Your task to perform on an android device: set the stopwatch Image 0: 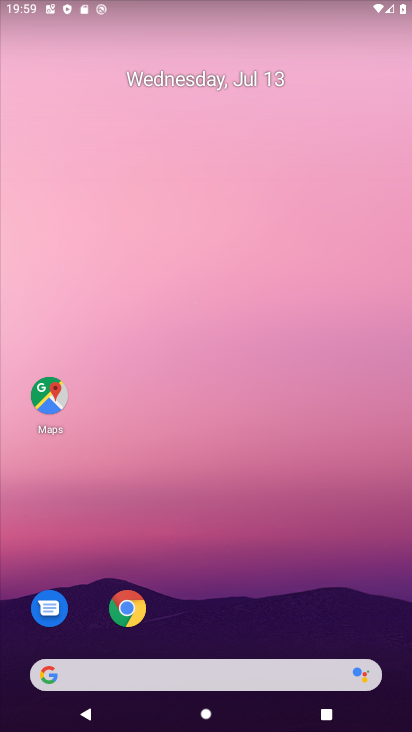
Step 0: drag from (199, 632) to (201, 146)
Your task to perform on an android device: set the stopwatch Image 1: 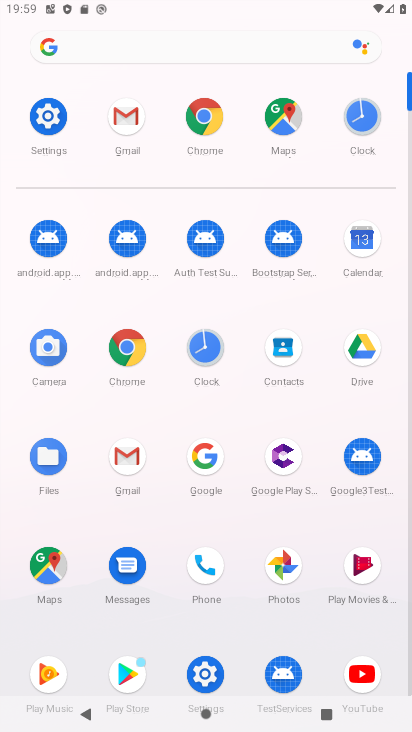
Step 1: click (192, 340)
Your task to perform on an android device: set the stopwatch Image 2: 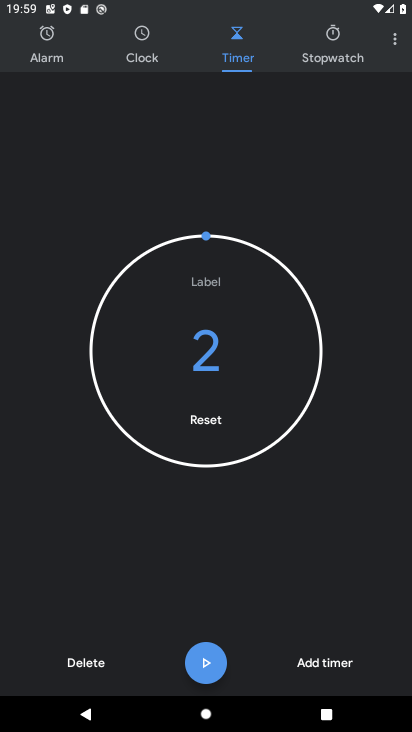
Step 2: click (309, 55)
Your task to perform on an android device: set the stopwatch Image 3: 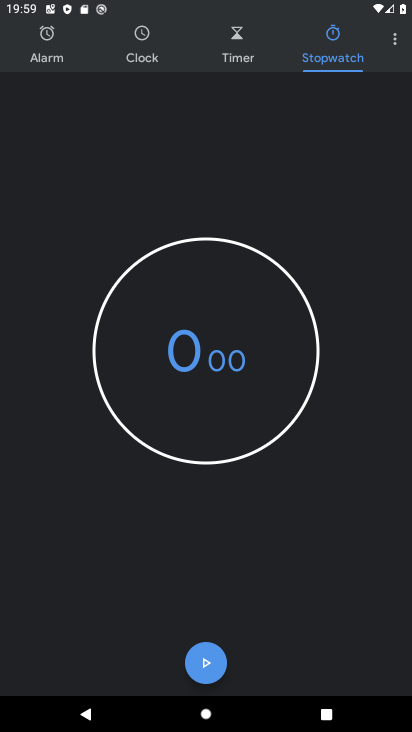
Step 3: click (219, 644)
Your task to perform on an android device: set the stopwatch Image 4: 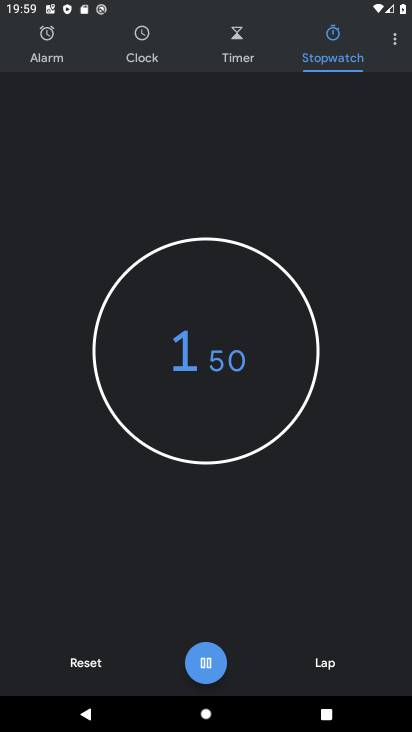
Step 4: click (200, 657)
Your task to perform on an android device: set the stopwatch Image 5: 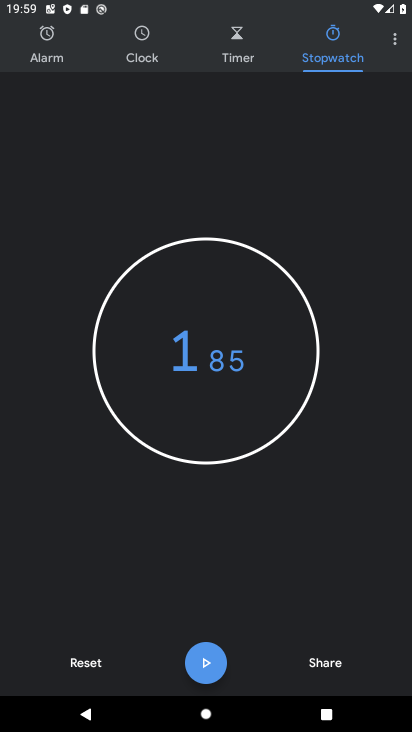
Step 5: task complete